Your task to perform on an android device: Open Youtube and go to the subscriptions tab Image 0: 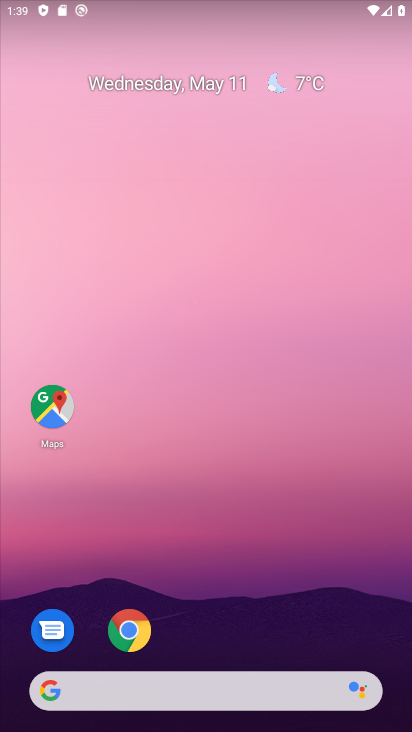
Step 0: drag from (388, 639) to (269, 43)
Your task to perform on an android device: Open Youtube and go to the subscriptions tab Image 1: 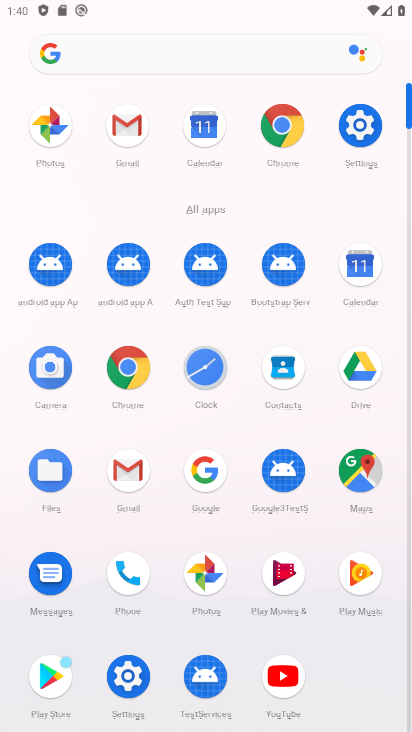
Step 1: click (288, 674)
Your task to perform on an android device: Open Youtube and go to the subscriptions tab Image 2: 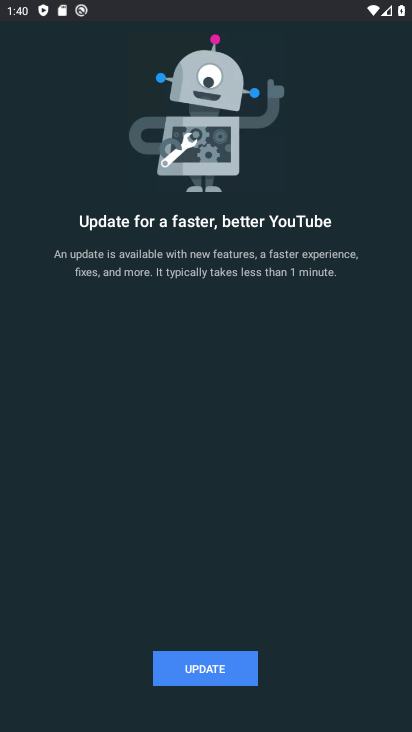
Step 2: drag from (174, 676) to (138, 676)
Your task to perform on an android device: Open Youtube and go to the subscriptions tab Image 3: 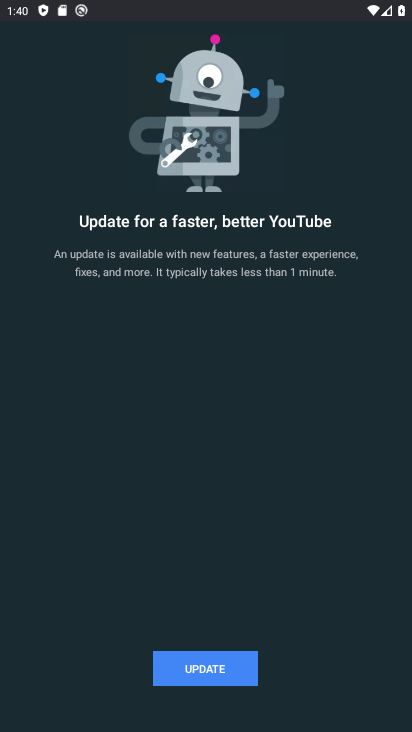
Step 3: click (214, 667)
Your task to perform on an android device: Open Youtube and go to the subscriptions tab Image 4: 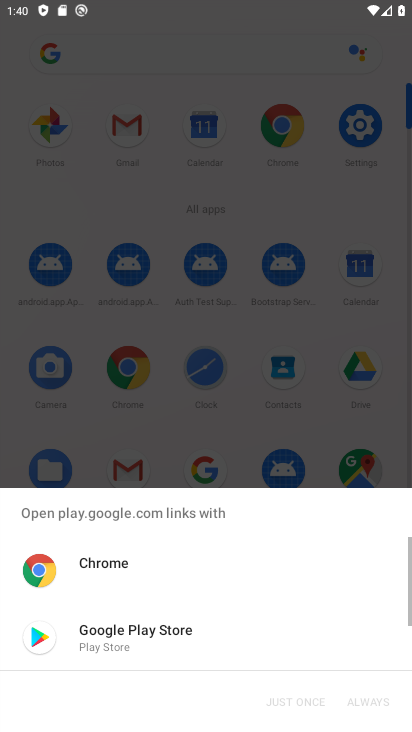
Step 4: drag from (156, 574) to (192, 574)
Your task to perform on an android device: Open Youtube and go to the subscriptions tab Image 5: 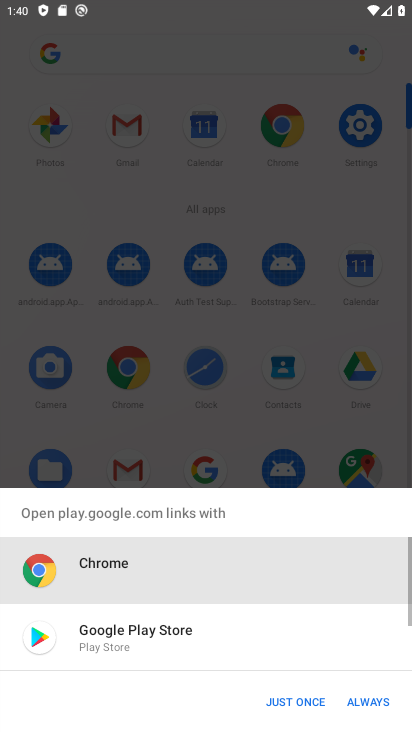
Step 5: click (143, 617)
Your task to perform on an android device: Open Youtube and go to the subscriptions tab Image 6: 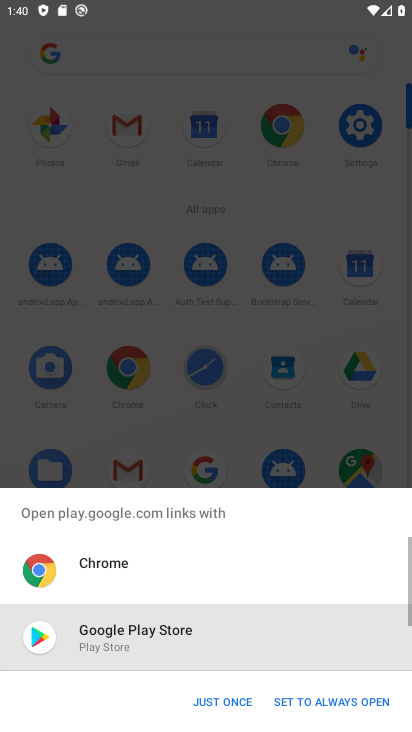
Step 6: click (216, 707)
Your task to perform on an android device: Open Youtube and go to the subscriptions tab Image 7: 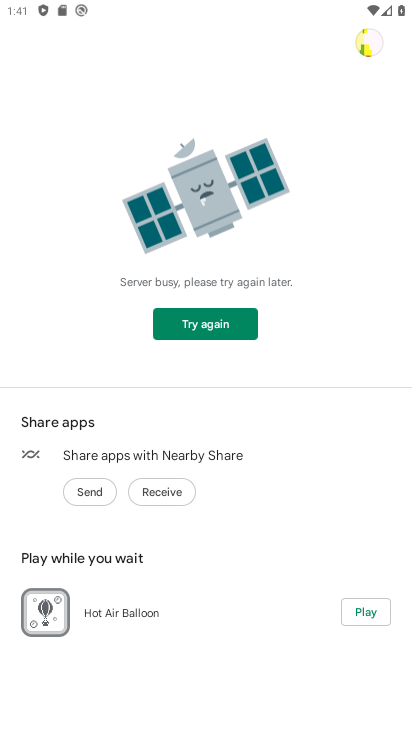
Step 7: task complete